Your task to perform on an android device: Open Youtube and go to the subscriptions tab Image 0: 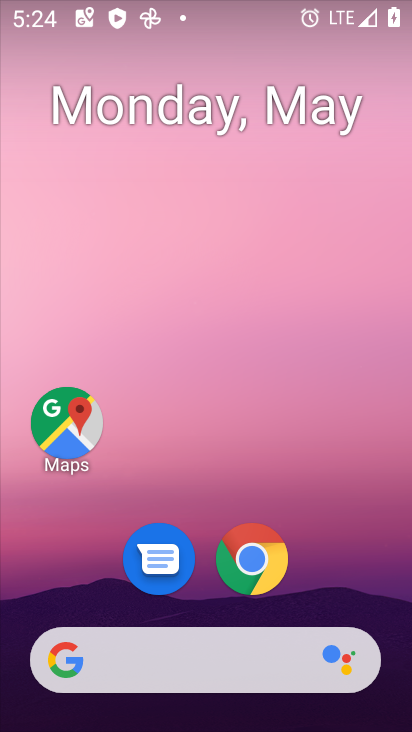
Step 0: drag from (331, 641) to (352, 3)
Your task to perform on an android device: Open Youtube and go to the subscriptions tab Image 1: 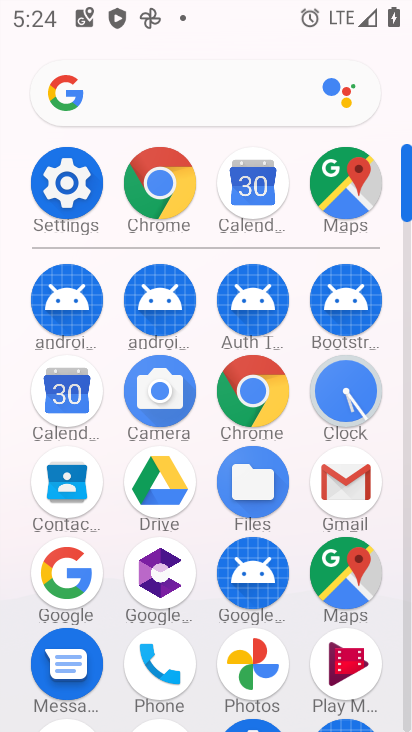
Step 1: drag from (297, 678) to (322, 202)
Your task to perform on an android device: Open Youtube and go to the subscriptions tab Image 2: 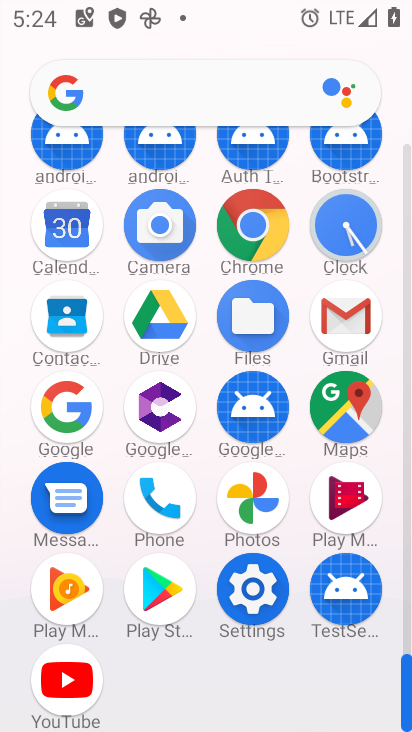
Step 2: click (63, 676)
Your task to perform on an android device: Open Youtube and go to the subscriptions tab Image 3: 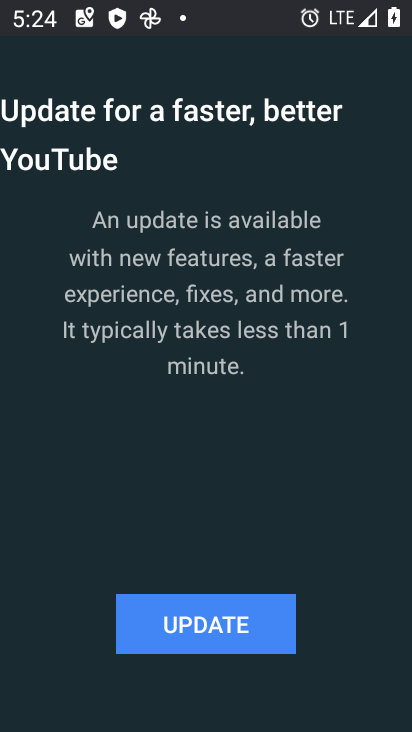
Step 3: click (210, 626)
Your task to perform on an android device: Open Youtube and go to the subscriptions tab Image 4: 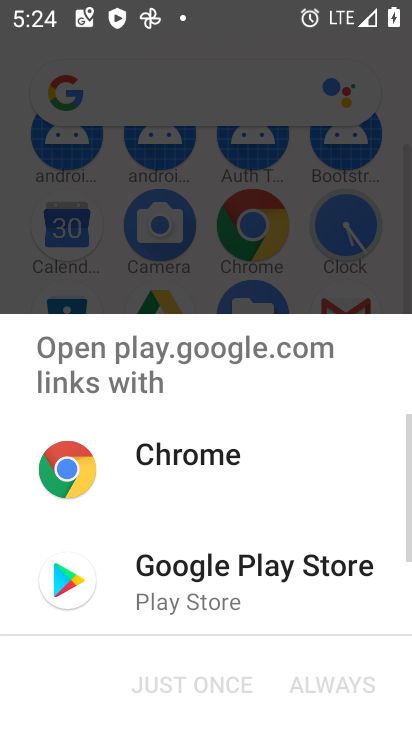
Step 4: click (269, 585)
Your task to perform on an android device: Open Youtube and go to the subscriptions tab Image 5: 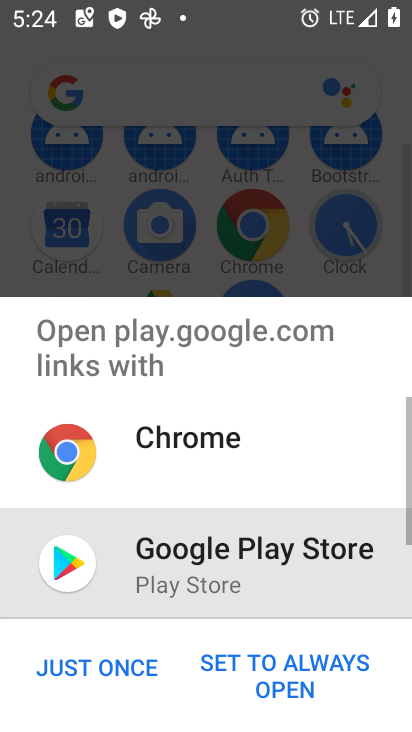
Step 5: click (136, 666)
Your task to perform on an android device: Open Youtube and go to the subscriptions tab Image 6: 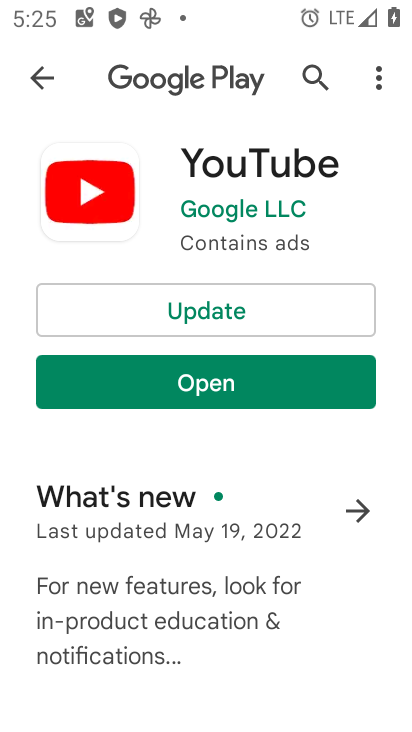
Step 6: click (213, 314)
Your task to perform on an android device: Open Youtube and go to the subscriptions tab Image 7: 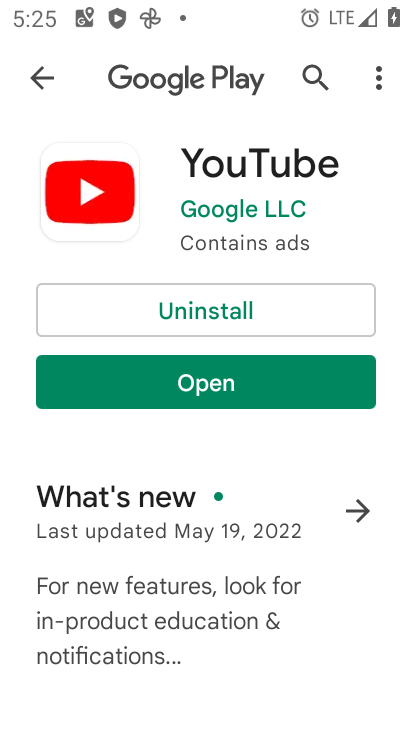
Step 7: click (232, 377)
Your task to perform on an android device: Open Youtube and go to the subscriptions tab Image 8: 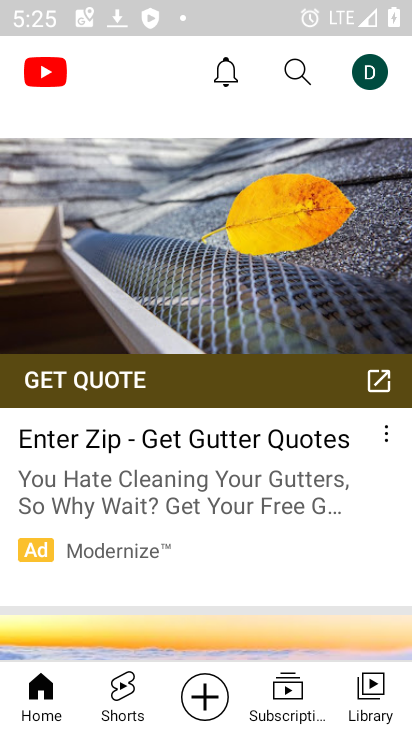
Step 8: click (284, 678)
Your task to perform on an android device: Open Youtube and go to the subscriptions tab Image 9: 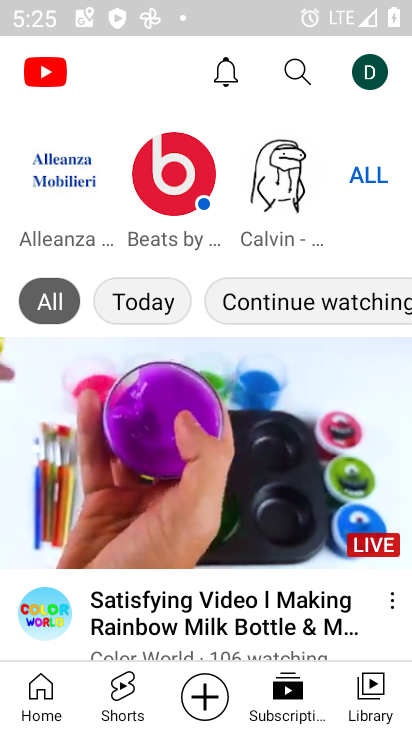
Step 9: click (281, 698)
Your task to perform on an android device: Open Youtube and go to the subscriptions tab Image 10: 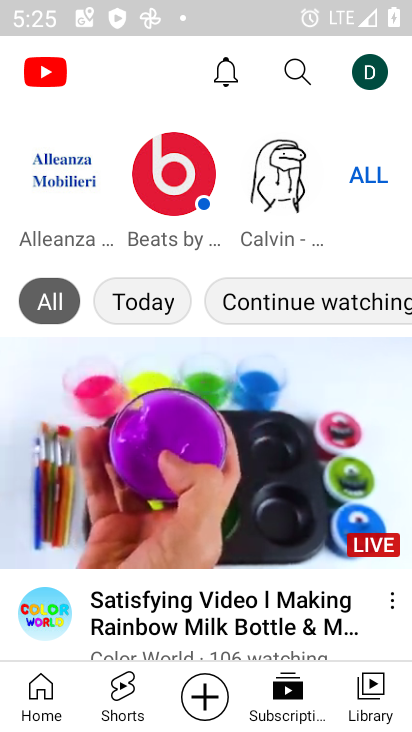
Step 10: task complete